Your task to perform on an android device: Go to Yahoo.com Image 0: 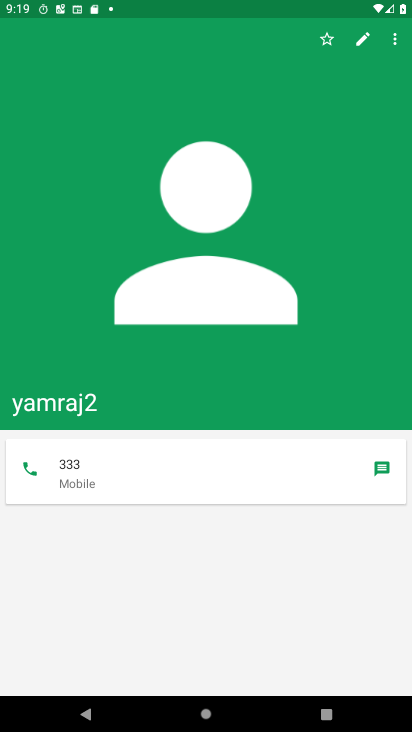
Step 0: press home button
Your task to perform on an android device: Go to Yahoo.com Image 1: 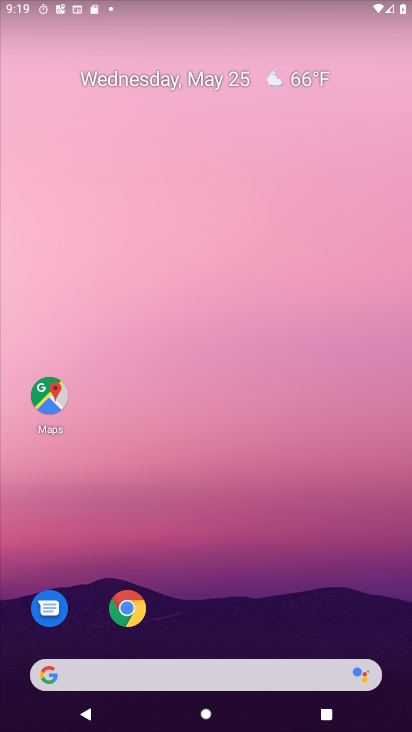
Step 1: click (128, 611)
Your task to perform on an android device: Go to Yahoo.com Image 2: 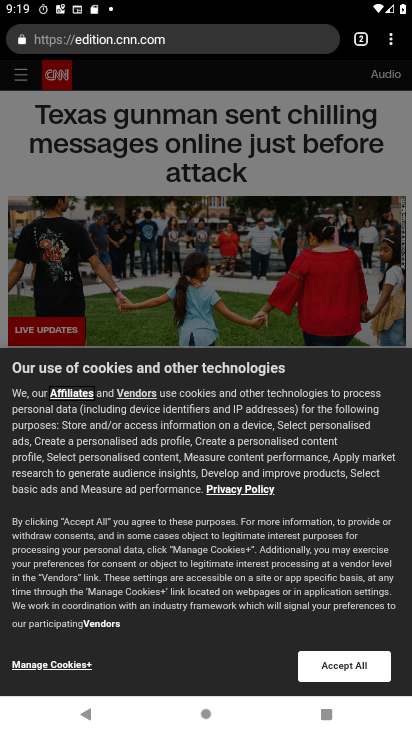
Step 2: click (390, 40)
Your task to perform on an android device: Go to Yahoo.com Image 3: 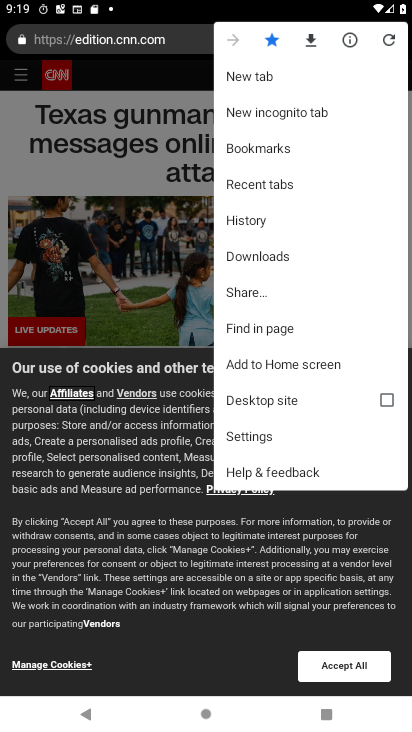
Step 3: click (247, 77)
Your task to perform on an android device: Go to Yahoo.com Image 4: 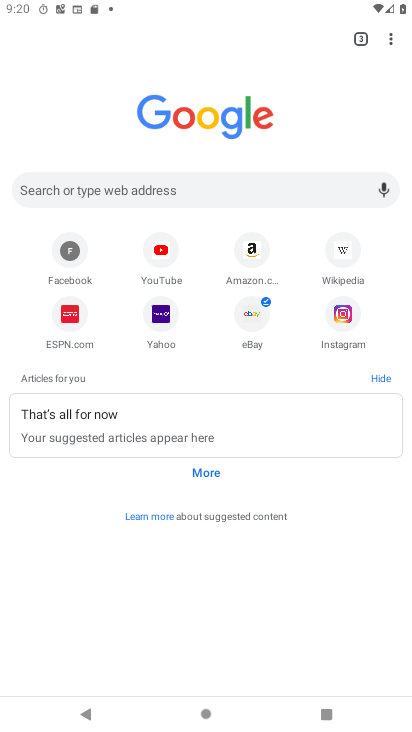
Step 4: click (162, 306)
Your task to perform on an android device: Go to Yahoo.com Image 5: 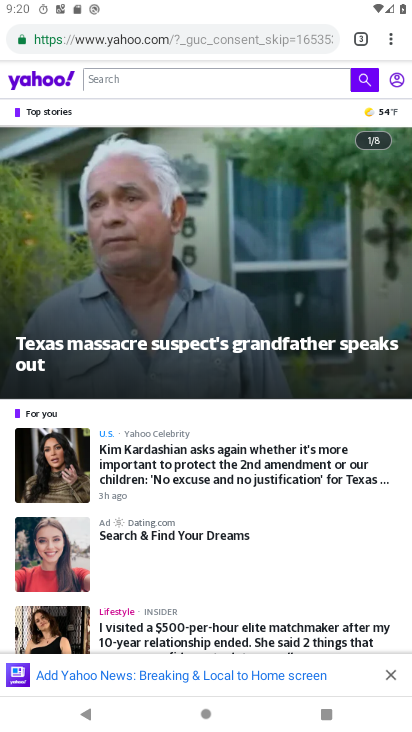
Step 5: task complete